Your task to perform on an android device: open chrome privacy settings Image 0: 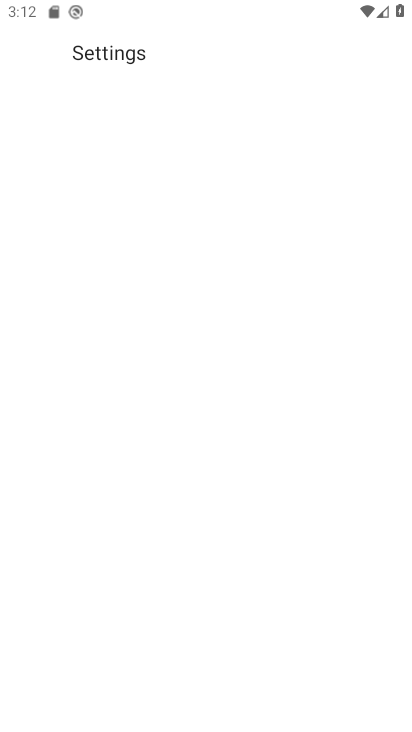
Step 0: drag from (212, 634) to (257, 269)
Your task to perform on an android device: open chrome privacy settings Image 1: 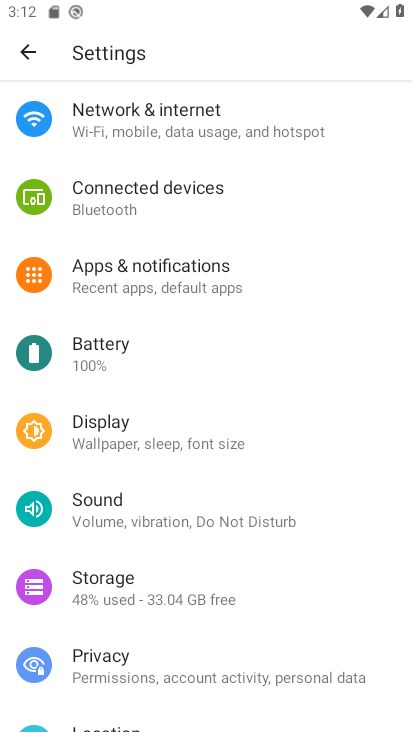
Step 1: click (128, 653)
Your task to perform on an android device: open chrome privacy settings Image 2: 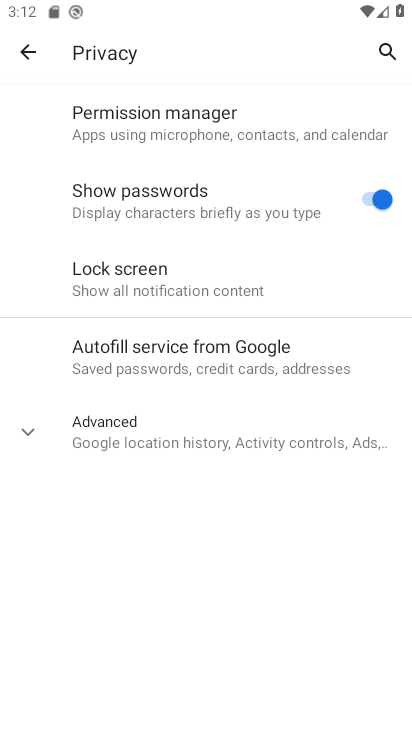
Step 2: click (30, 431)
Your task to perform on an android device: open chrome privacy settings Image 3: 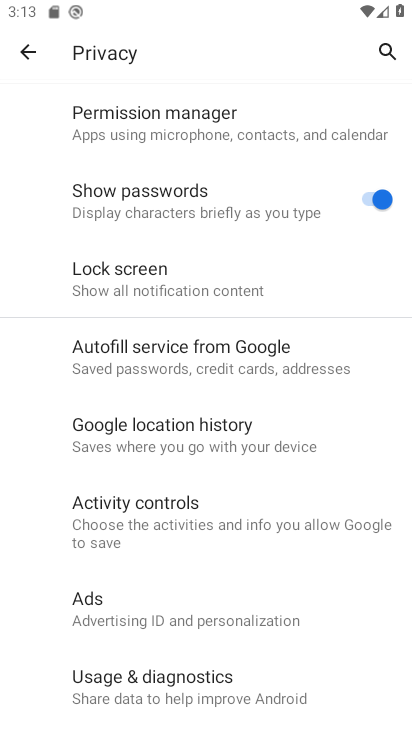
Step 3: task complete